Your task to perform on an android device: Search for pizza restaurants on Maps Image 0: 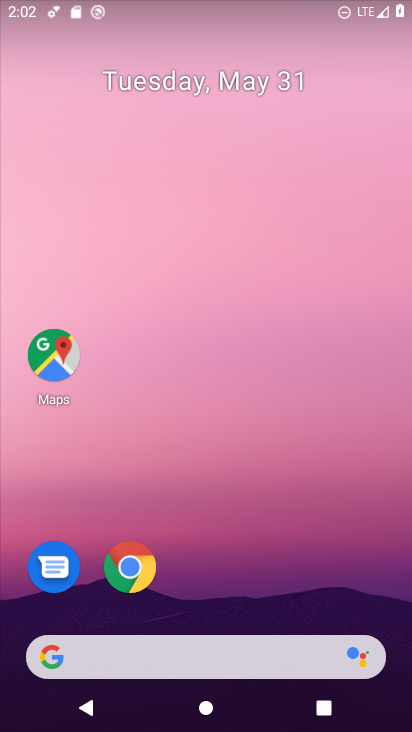
Step 0: click (59, 349)
Your task to perform on an android device: Search for pizza restaurants on Maps Image 1: 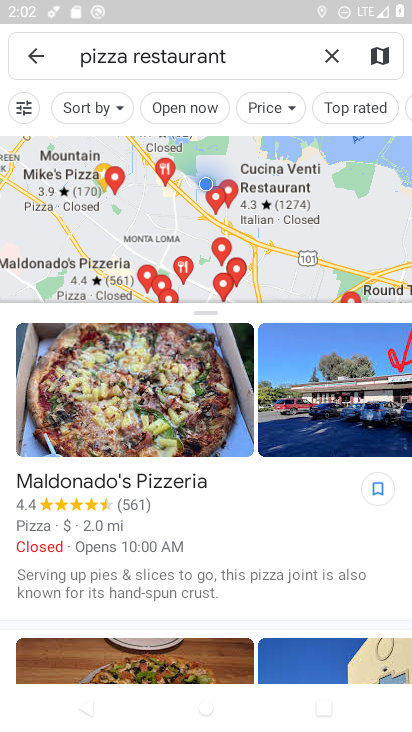
Step 1: task complete